Your task to perform on an android device: Open privacy settings Image 0: 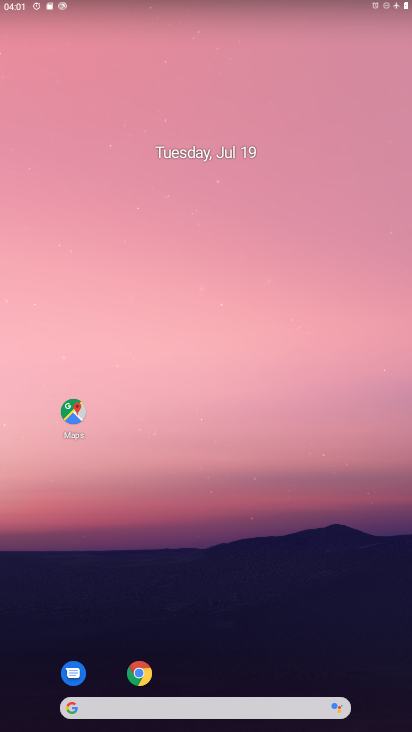
Step 0: drag from (199, 548) to (214, 129)
Your task to perform on an android device: Open privacy settings Image 1: 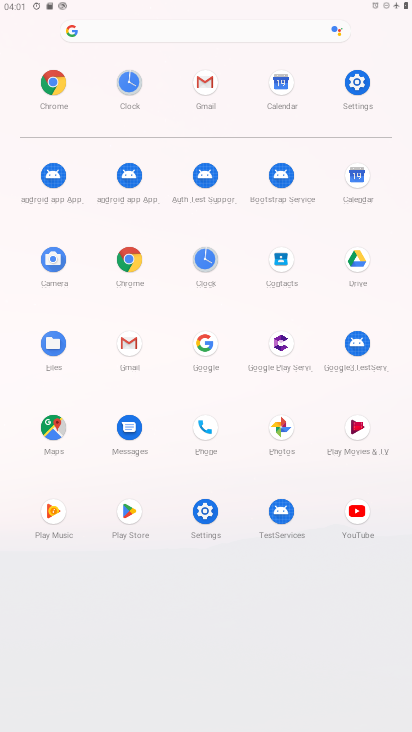
Step 1: click (208, 529)
Your task to perform on an android device: Open privacy settings Image 2: 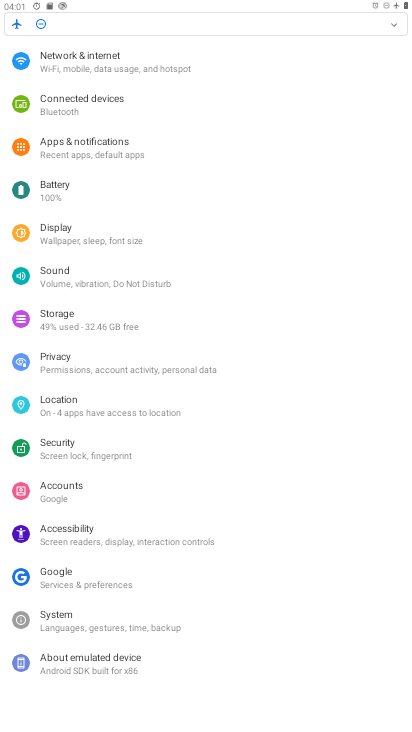
Step 2: click (86, 374)
Your task to perform on an android device: Open privacy settings Image 3: 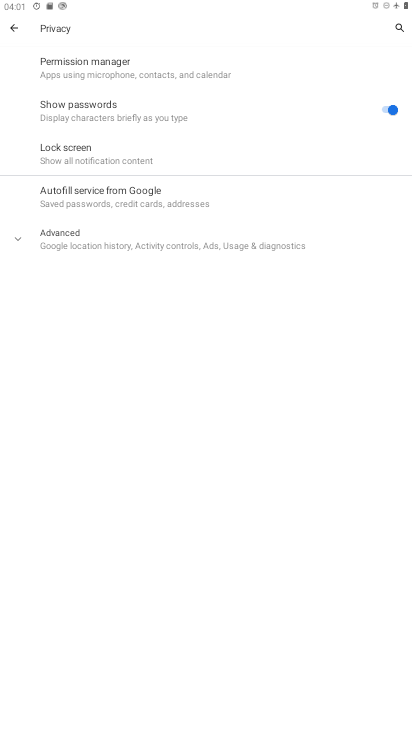
Step 3: task complete